Your task to perform on an android device: turn on data saver in the chrome app Image 0: 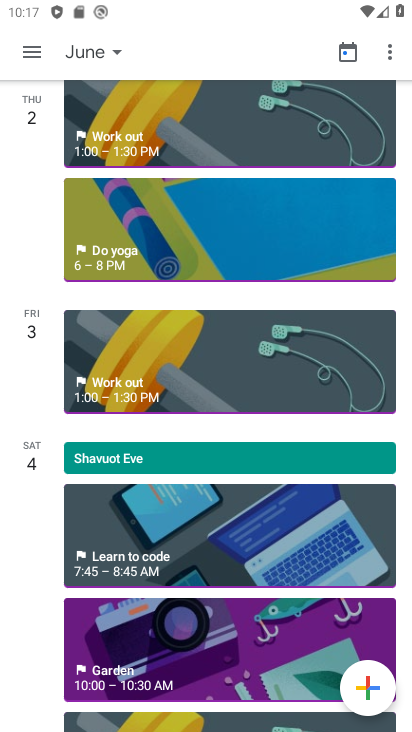
Step 0: press home button
Your task to perform on an android device: turn on data saver in the chrome app Image 1: 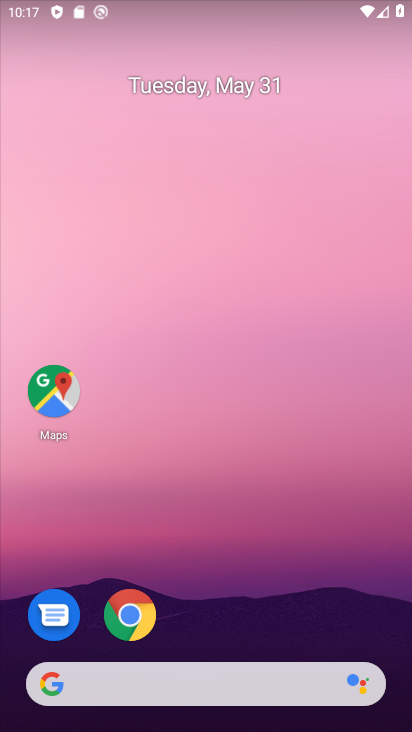
Step 1: drag from (371, 610) to (324, 65)
Your task to perform on an android device: turn on data saver in the chrome app Image 2: 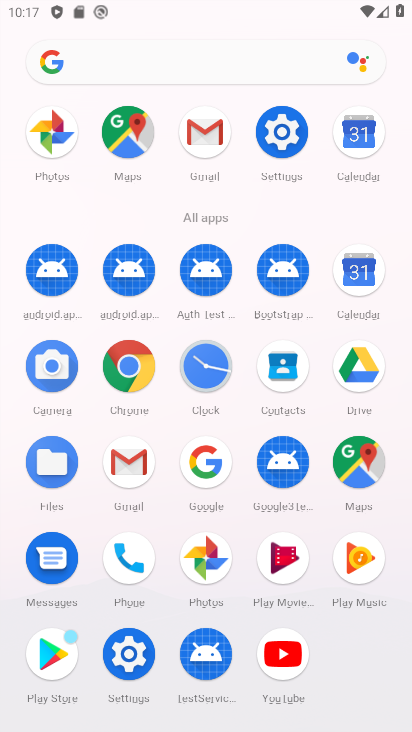
Step 2: click (110, 359)
Your task to perform on an android device: turn on data saver in the chrome app Image 3: 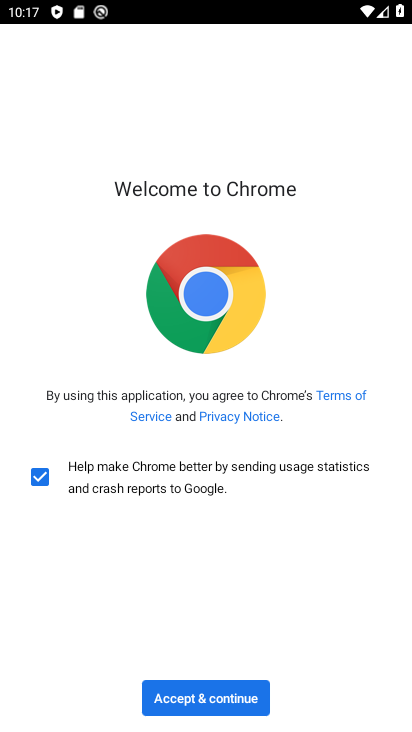
Step 3: click (250, 696)
Your task to perform on an android device: turn on data saver in the chrome app Image 4: 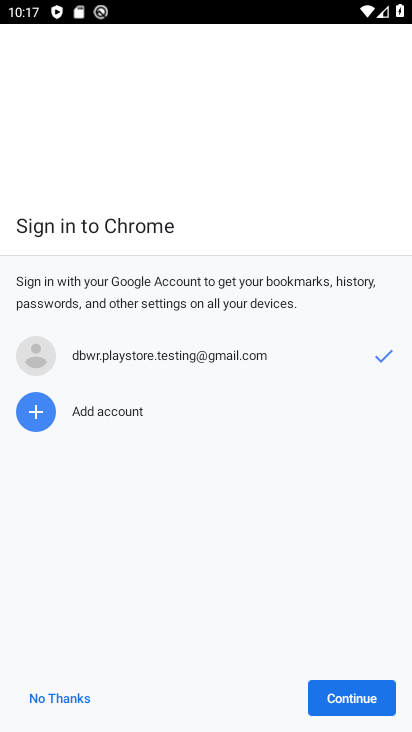
Step 4: click (371, 703)
Your task to perform on an android device: turn on data saver in the chrome app Image 5: 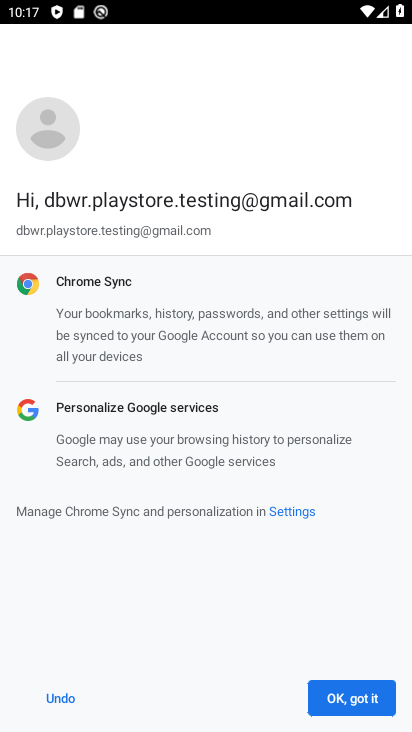
Step 5: click (322, 700)
Your task to perform on an android device: turn on data saver in the chrome app Image 6: 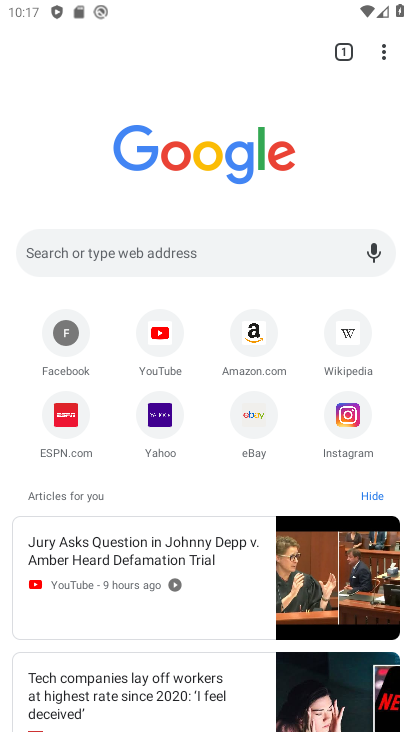
Step 6: drag from (387, 70) to (263, 444)
Your task to perform on an android device: turn on data saver in the chrome app Image 7: 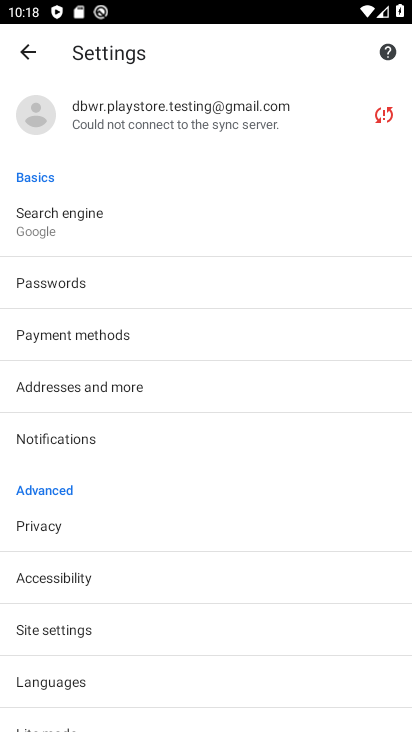
Step 7: drag from (274, 601) to (271, 275)
Your task to perform on an android device: turn on data saver in the chrome app Image 8: 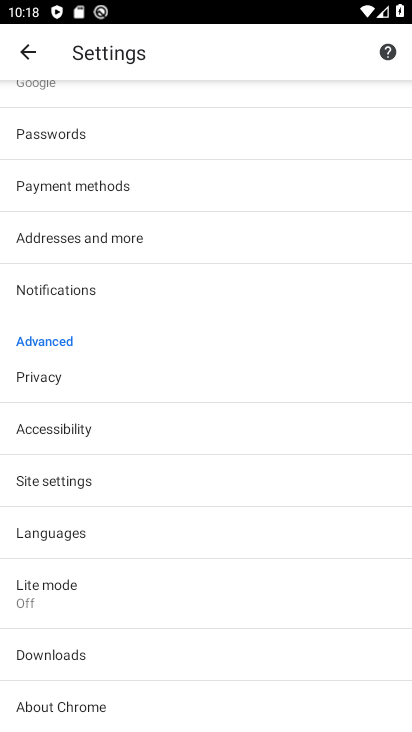
Step 8: click (107, 579)
Your task to perform on an android device: turn on data saver in the chrome app Image 9: 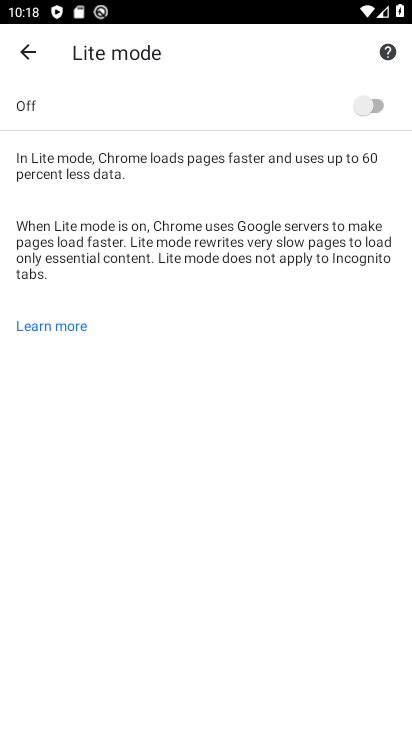
Step 9: click (379, 107)
Your task to perform on an android device: turn on data saver in the chrome app Image 10: 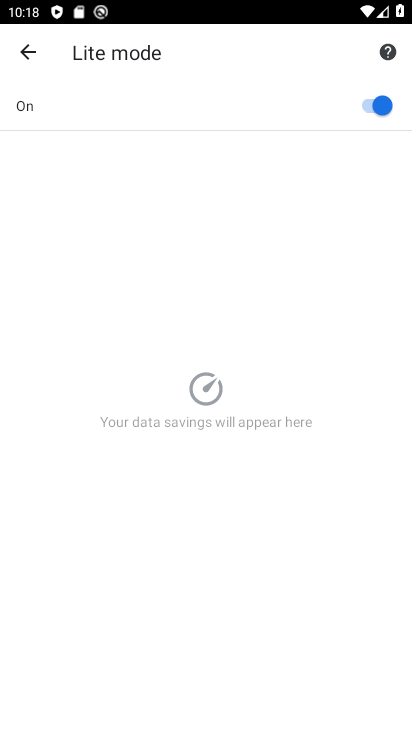
Step 10: task complete